Your task to perform on an android device: open app "PUBG MOBILE" Image 0: 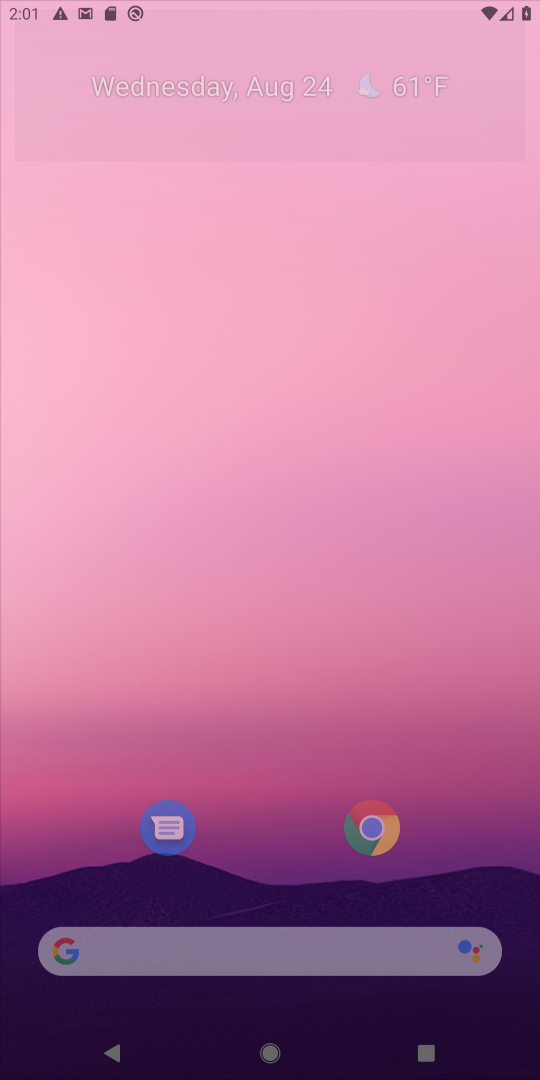
Step 0: press home button
Your task to perform on an android device: open app "PUBG MOBILE" Image 1: 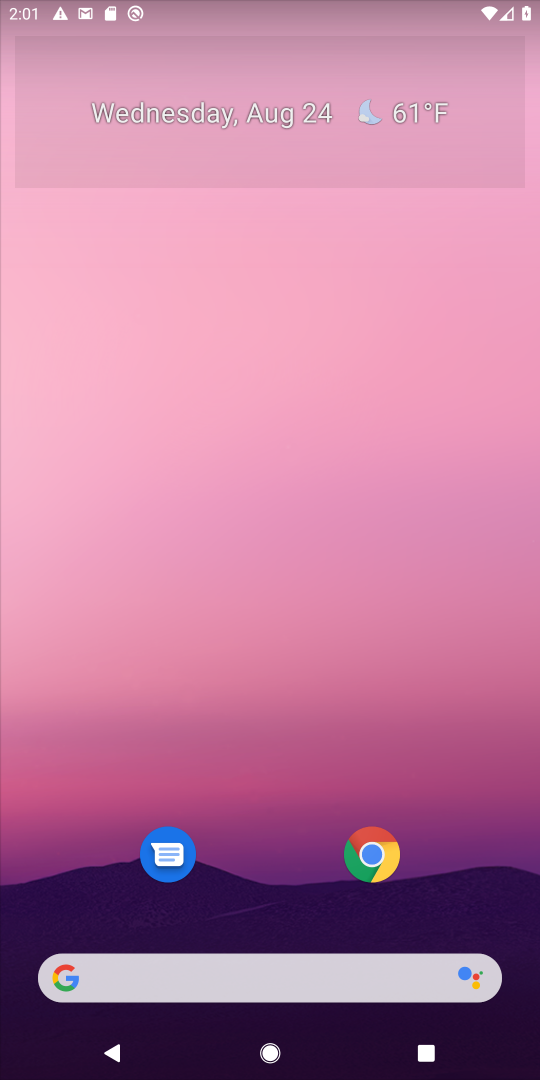
Step 1: drag from (474, 726) to (494, 66)
Your task to perform on an android device: open app "PUBG MOBILE" Image 2: 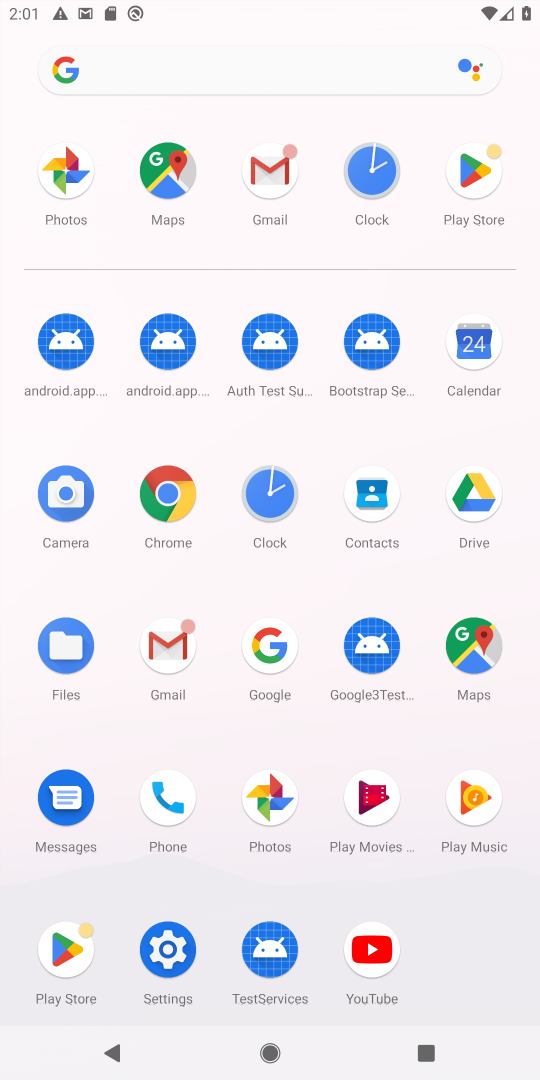
Step 2: click (472, 164)
Your task to perform on an android device: open app "PUBG MOBILE" Image 3: 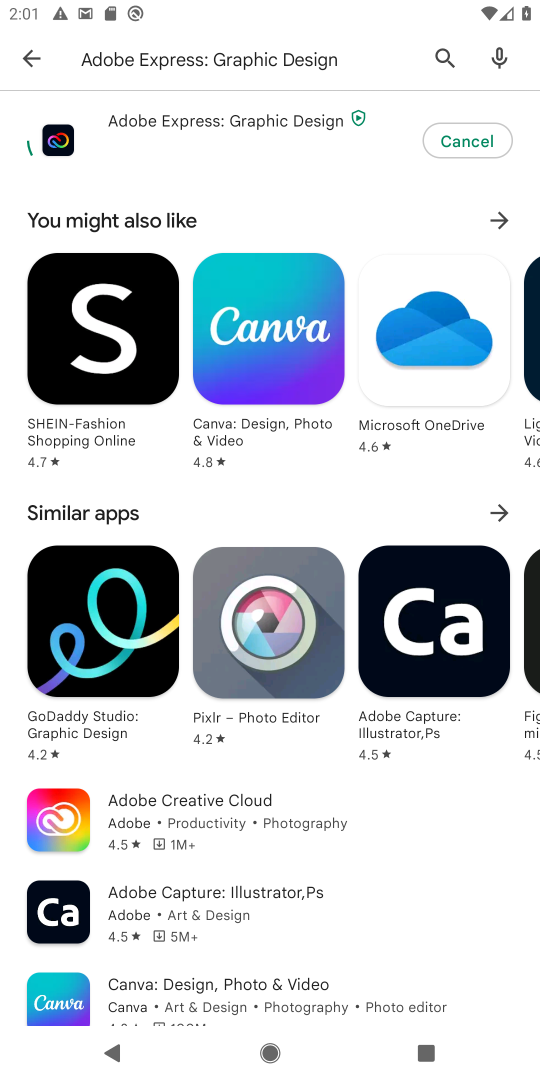
Step 3: press back button
Your task to perform on an android device: open app "PUBG MOBILE" Image 4: 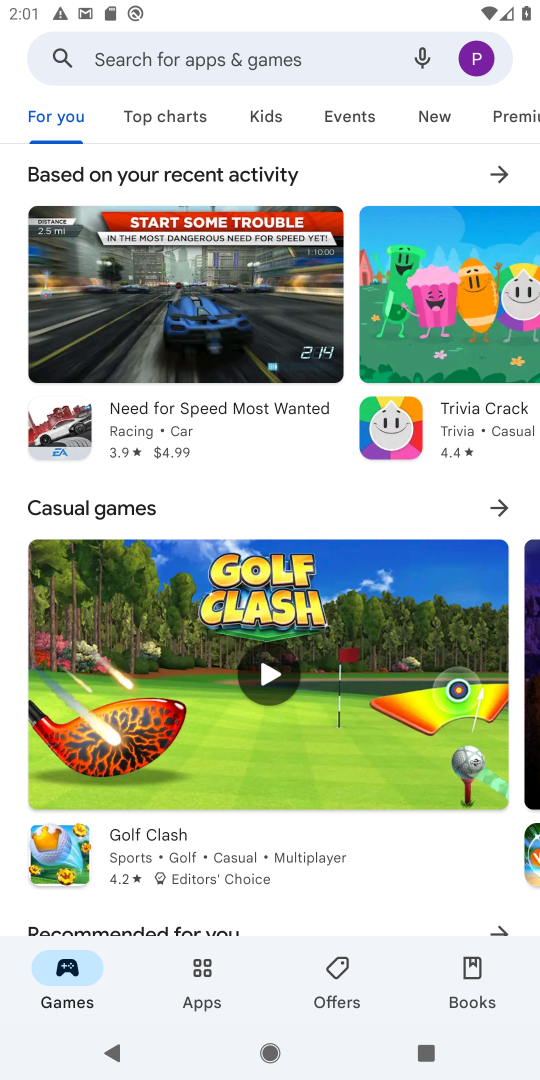
Step 4: click (290, 66)
Your task to perform on an android device: open app "PUBG MOBILE" Image 5: 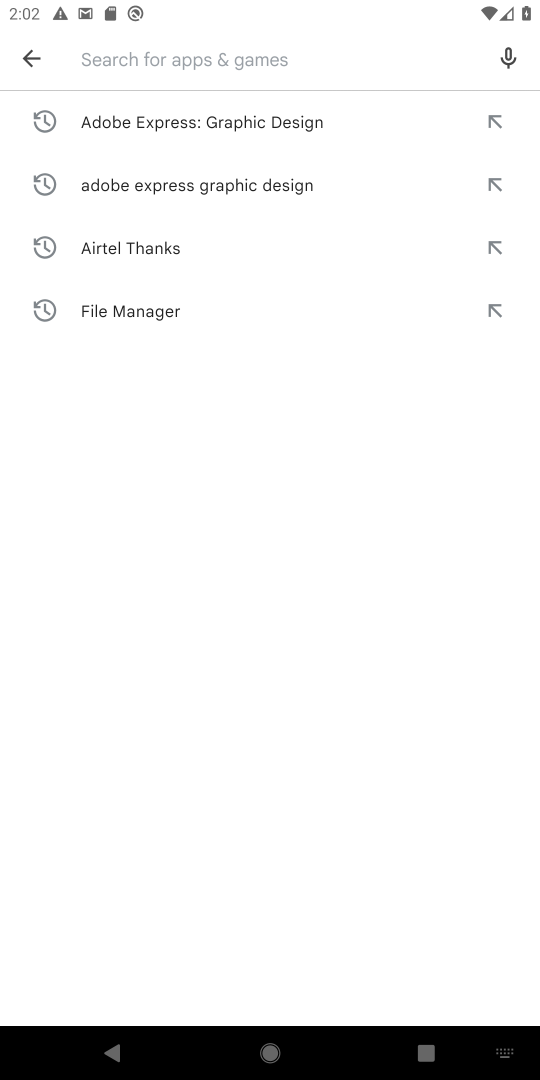
Step 5: press enter
Your task to perform on an android device: open app "PUBG MOBILE" Image 6: 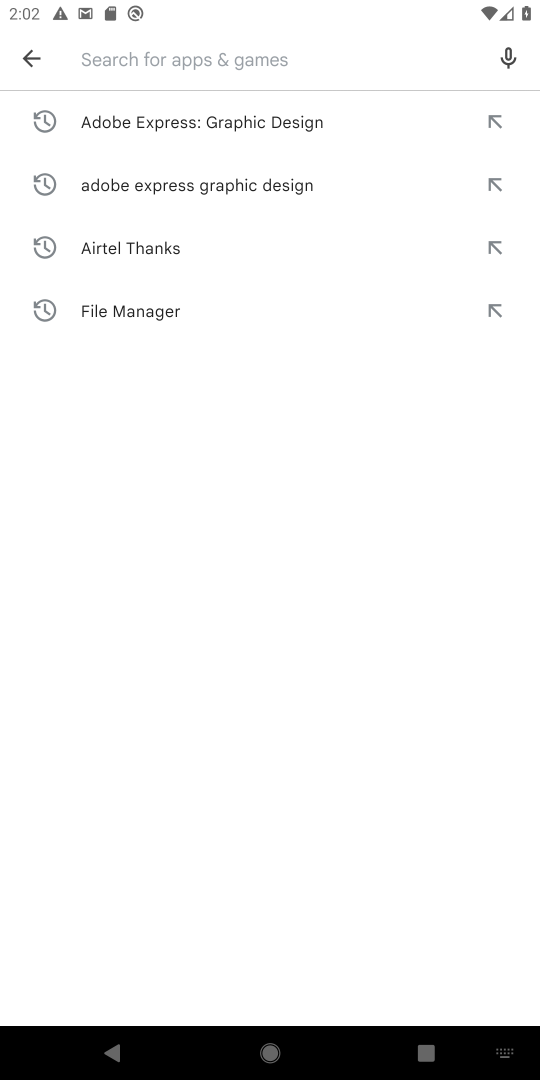
Step 6: type "PUBG MOBILE"
Your task to perform on an android device: open app "PUBG MOBILE" Image 7: 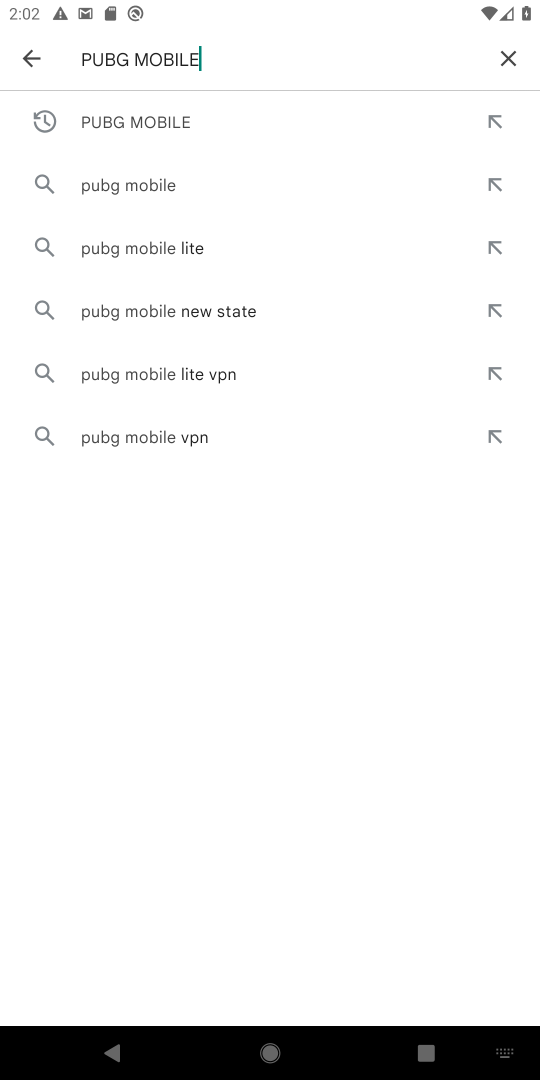
Step 7: click (187, 118)
Your task to perform on an android device: open app "PUBG MOBILE" Image 8: 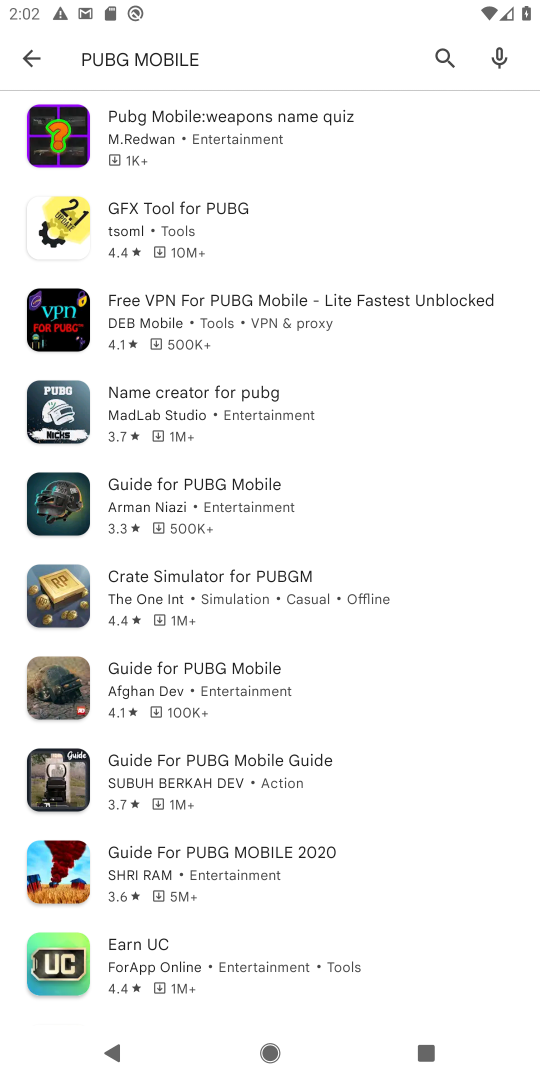
Step 8: task complete